Your task to perform on an android device: Go to wifi settings Image 0: 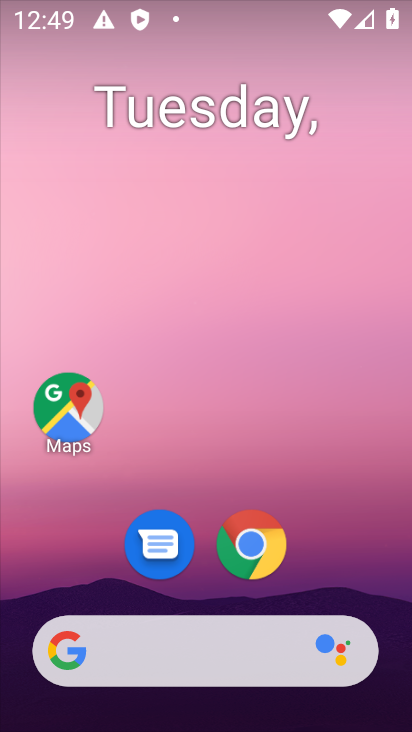
Step 0: drag from (340, 514) to (274, 37)
Your task to perform on an android device: Go to wifi settings Image 1: 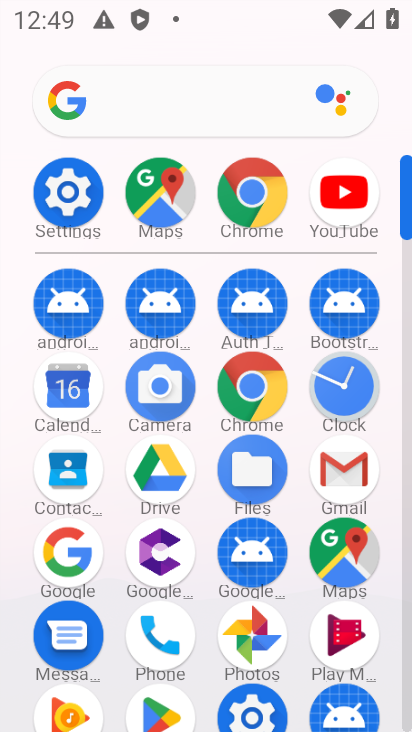
Step 1: click (254, 710)
Your task to perform on an android device: Go to wifi settings Image 2: 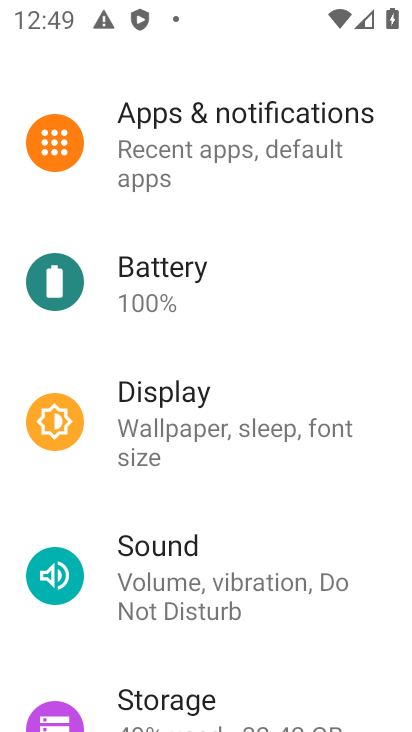
Step 2: drag from (241, 182) to (207, 569)
Your task to perform on an android device: Go to wifi settings Image 3: 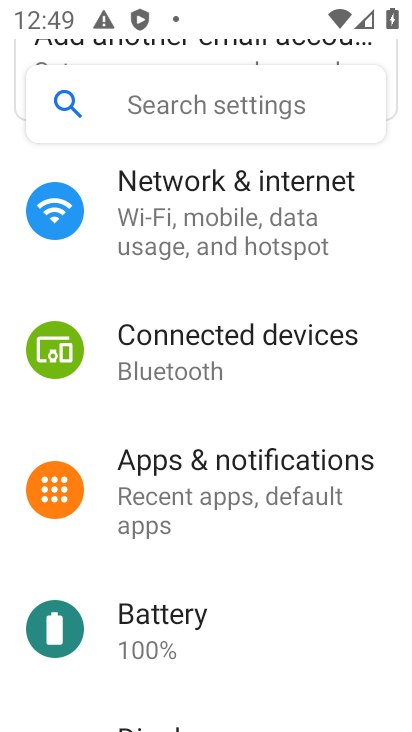
Step 3: click (186, 200)
Your task to perform on an android device: Go to wifi settings Image 4: 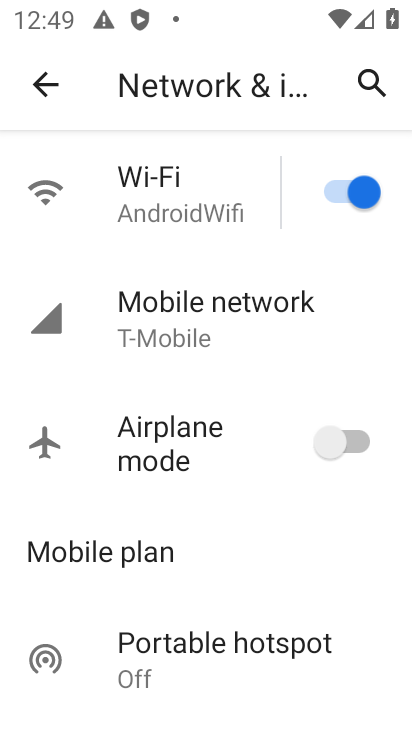
Step 4: click (188, 164)
Your task to perform on an android device: Go to wifi settings Image 5: 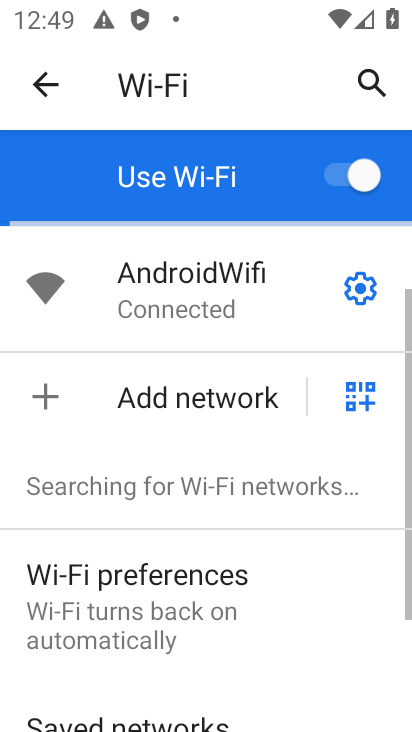
Step 5: click (375, 292)
Your task to perform on an android device: Go to wifi settings Image 6: 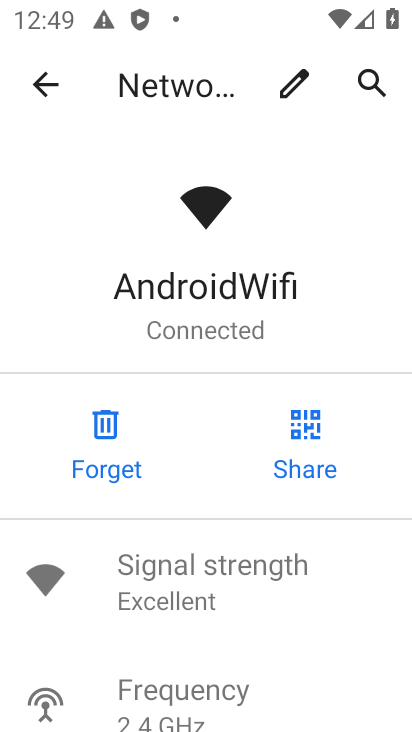
Step 6: task complete